Your task to perform on an android device: Go to eBay Image 0: 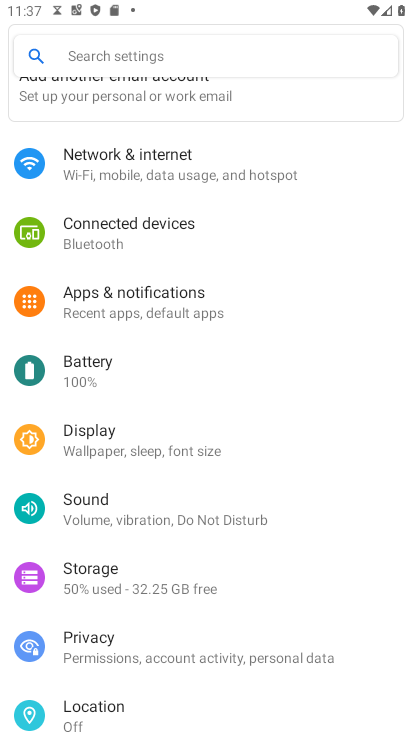
Step 0: press home button
Your task to perform on an android device: Go to eBay Image 1: 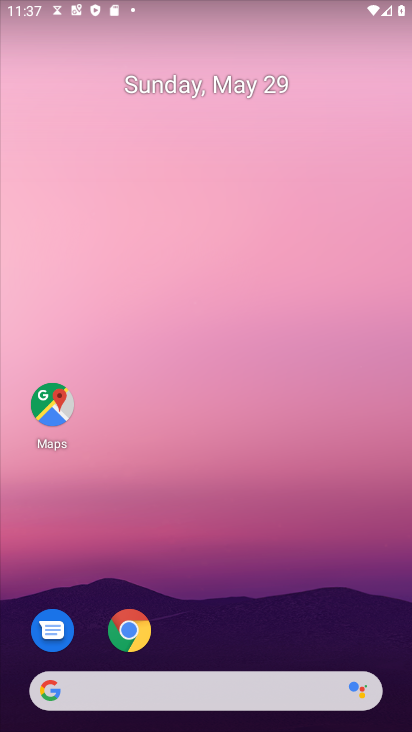
Step 1: click (141, 635)
Your task to perform on an android device: Go to eBay Image 2: 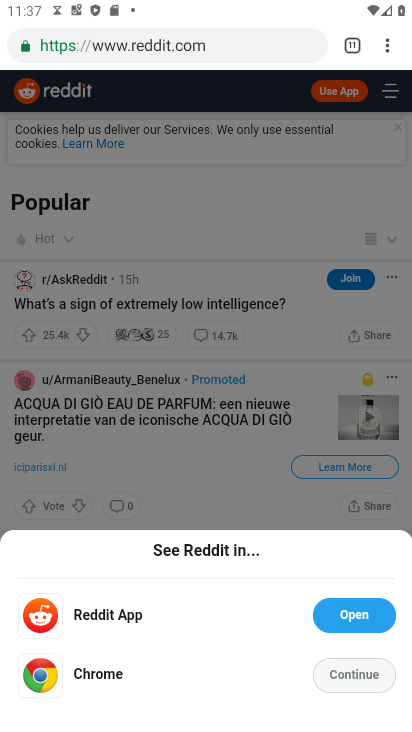
Step 2: click (350, 39)
Your task to perform on an android device: Go to eBay Image 3: 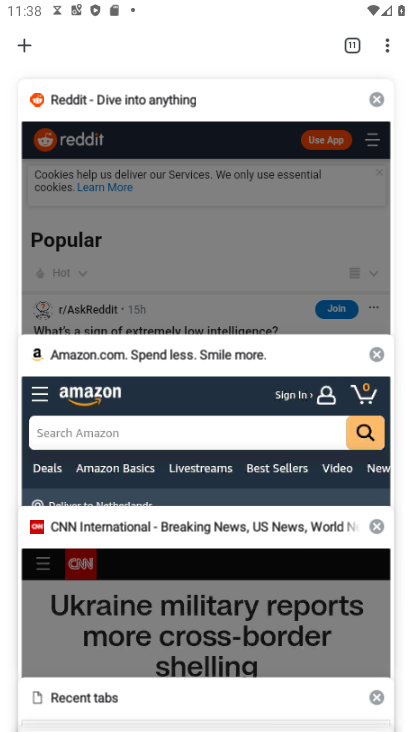
Step 3: drag from (255, 159) to (201, 618)
Your task to perform on an android device: Go to eBay Image 4: 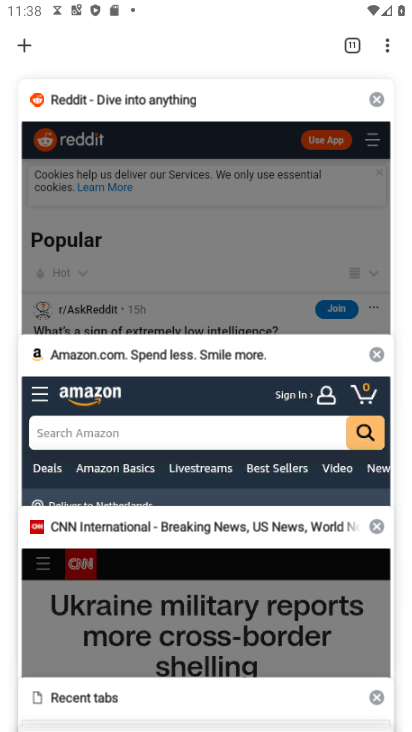
Step 4: drag from (186, 641) to (280, 143)
Your task to perform on an android device: Go to eBay Image 5: 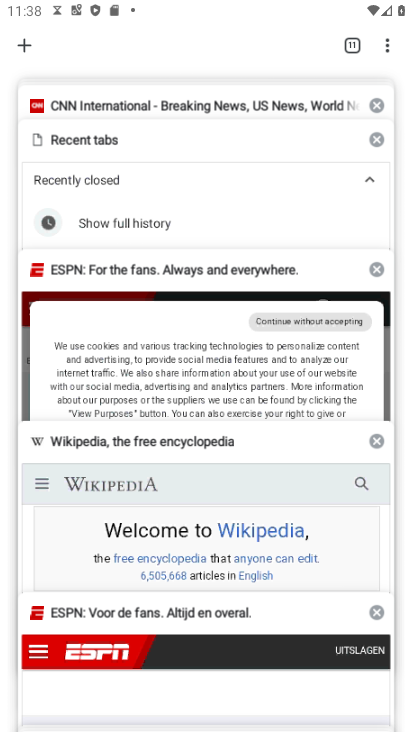
Step 5: drag from (221, 510) to (247, 12)
Your task to perform on an android device: Go to eBay Image 6: 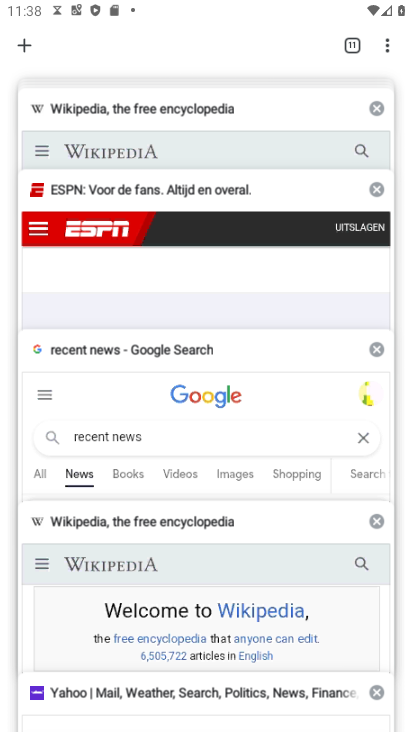
Step 6: drag from (174, 597) to (179, 121)
Your task to perform on an android device: Go to eBay Image 7: 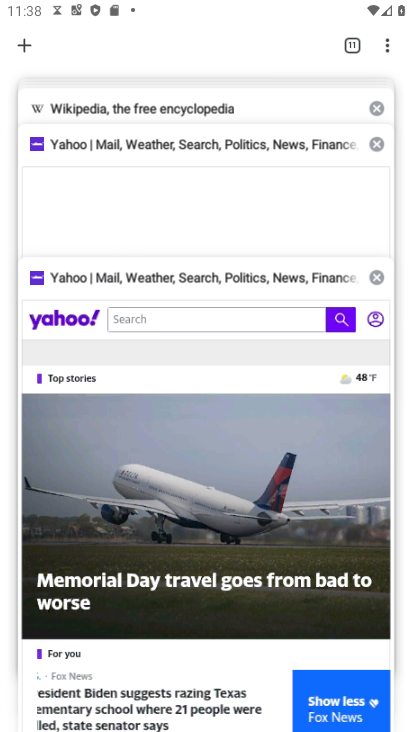
Step 7: drag from (137, 647) to (182, 126)
Your task to perform on an android device: Go to eBay Image 8: 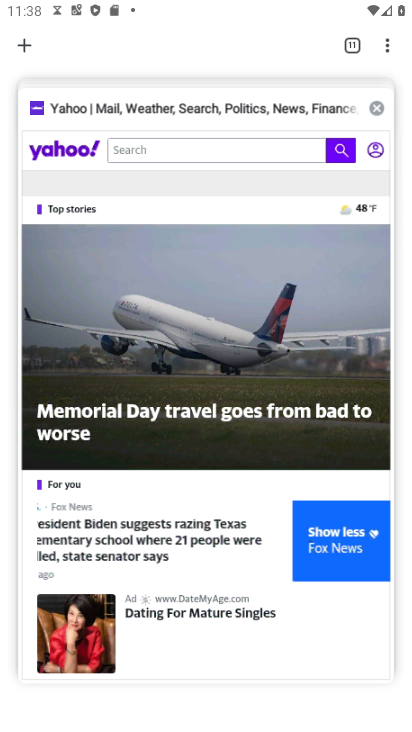
Step 8: drag from (184, 598) to (231, 162)
Your task to perform on an android device: Go to eBay Image 9: 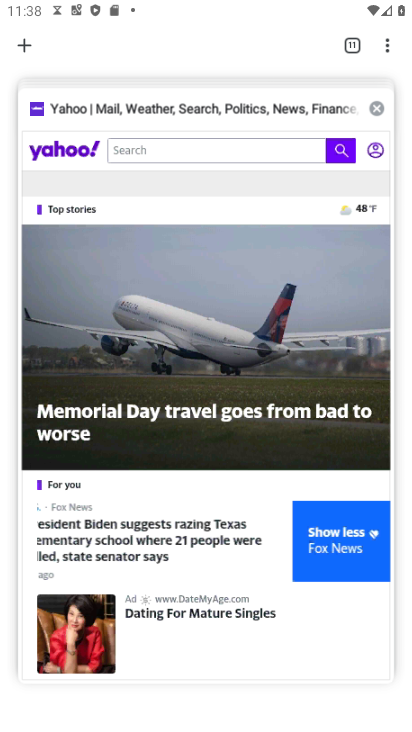
Step 9: click (32, 37)
Your task to perform on an android device: Go to eBay Image 10: 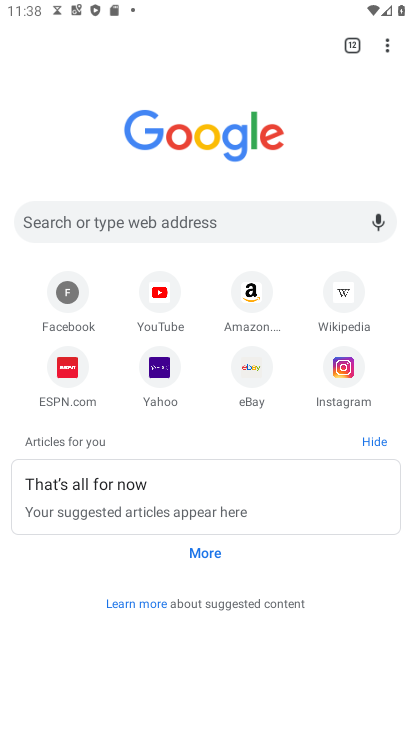
Step 10: click (260, 354)
Your task to perform on an android device: Go to eBay Image 11: 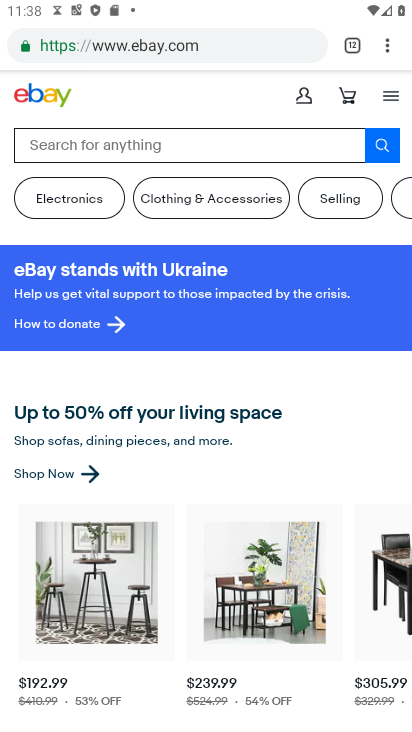
Step 11: task complete